Your task to perform on an android device: turn on the 24-hour format for clock Image 0: 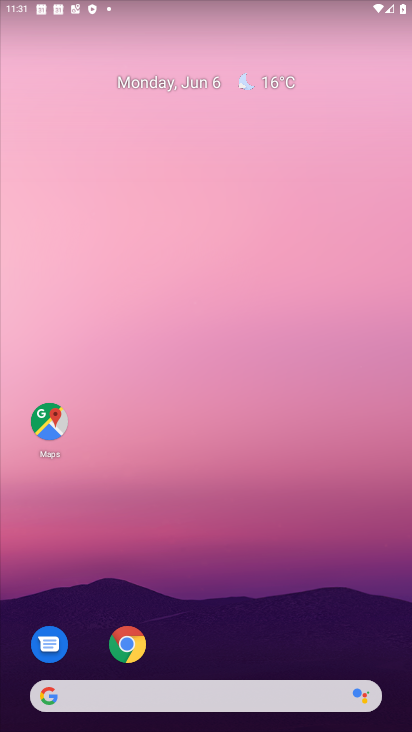
Step 0: drag from (235, 534) to (222, 50)
Your task to perform on an android device: turn on the 24-hour format for clock Image 1: 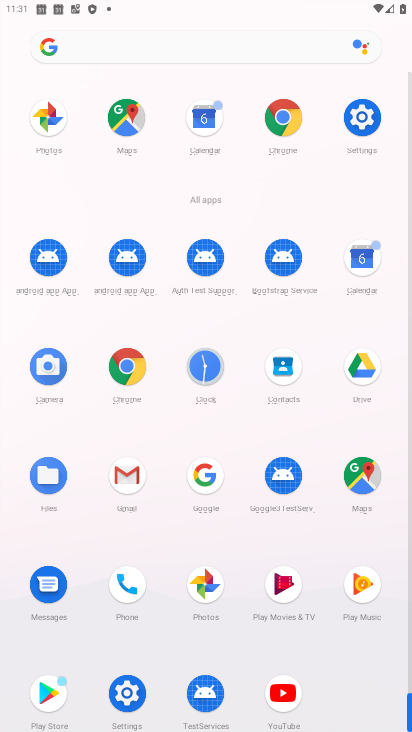
Step 1: drag from (7, 587) to (6, 195)
Your task to perform on an android device: turn on the 24-hour format for clock Image 2: 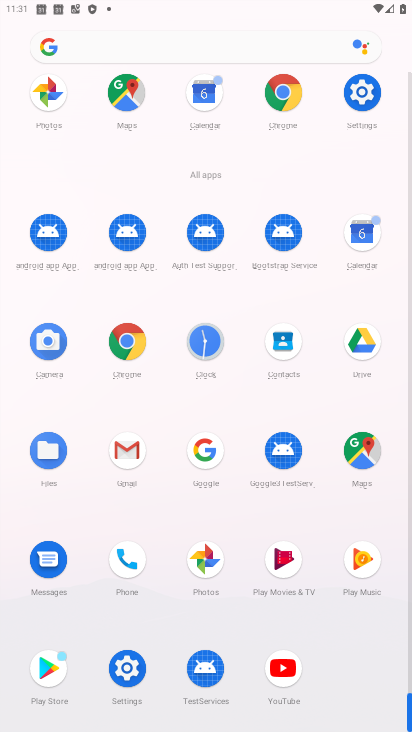
Step 2: click (124, 666)
Your task to perform on an android device: turn on the 24-hour format for clock Image 3: 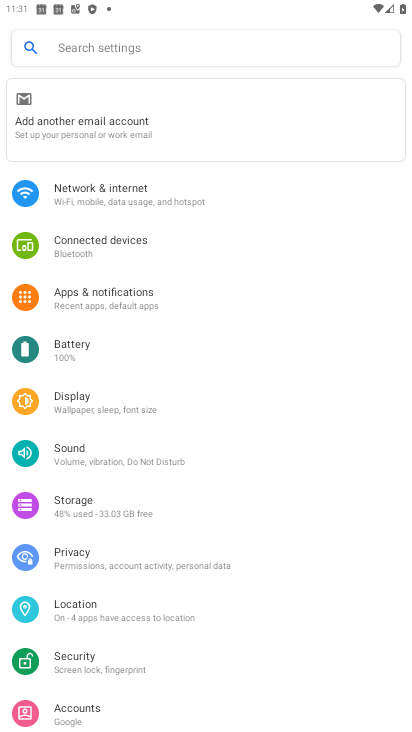
Step 3: drag from (221, 496) to (224, 181)
Your task to perform on an android device: turn on the 24-hour format for clock Image 4: 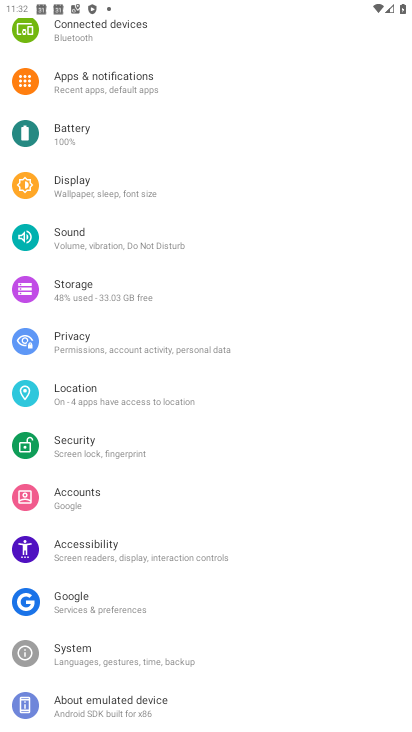
Step 4: drag from (175, 185) to (200, 609)
Your task to perform on an android device: turn on the 24-hour format for clock Image 5: 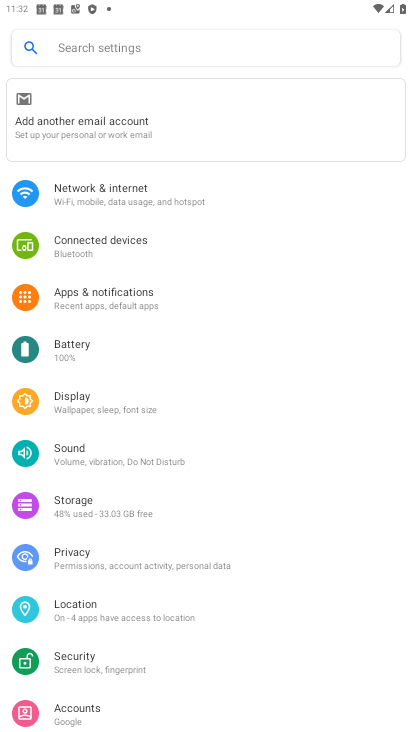
Step 5: press back button
Your task to perform on an android device: turn on the 24-hour format for clock Image 6: 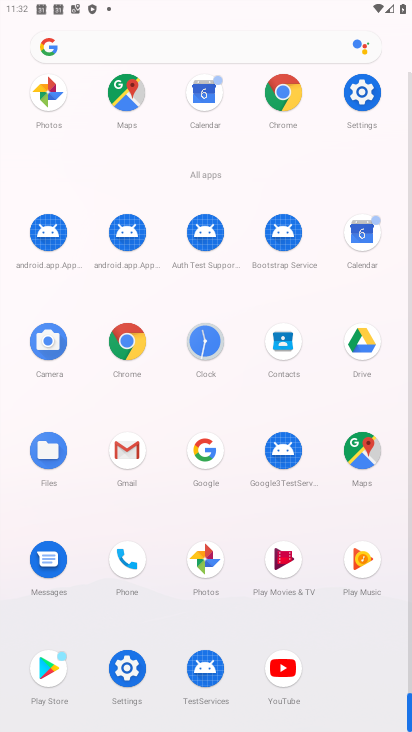
Step 6: drag from (10, 498) to (15, 306)
Your task to perform on an android device: turn on the 24-hour format for clock Image 7: 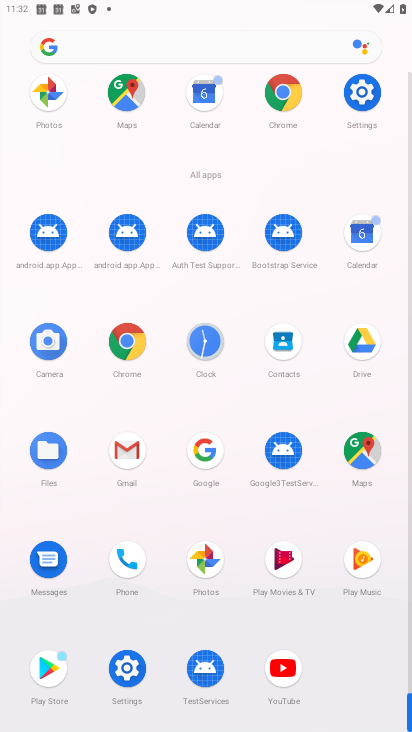
Step 7: click (204, 337)
Your task to perform on an android device: turn on the 24-hour format for clock Image 8: 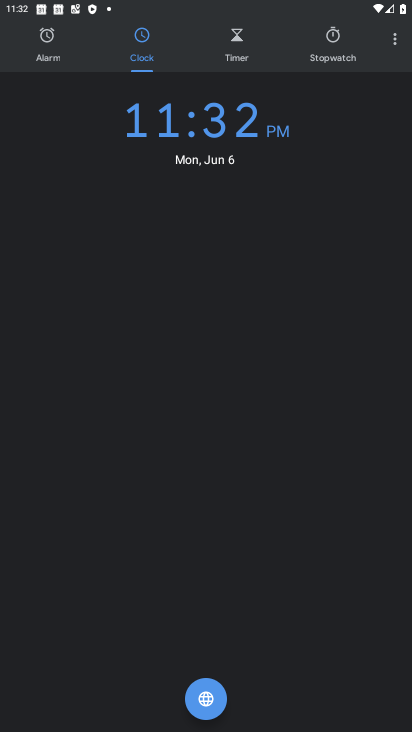
Step 8: drag from (391, 39) to (351, 81)
Your task to perform on an android device: turn on the 24-hour format for clock Image 9: 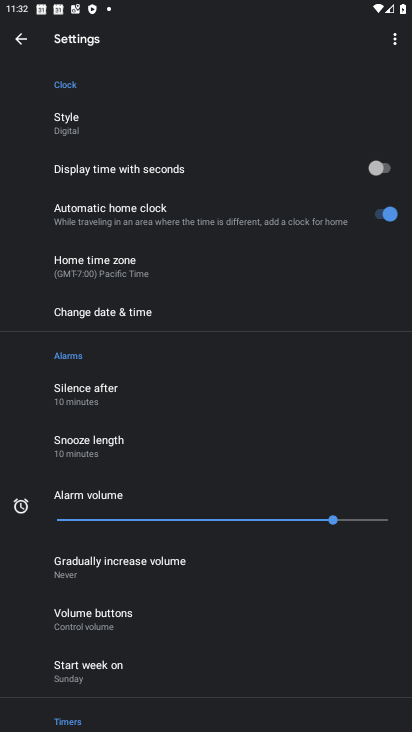
Step 9: click (158, 313)
Your task to perform on an android device: turn on the 24-hour format for clock Image 10: 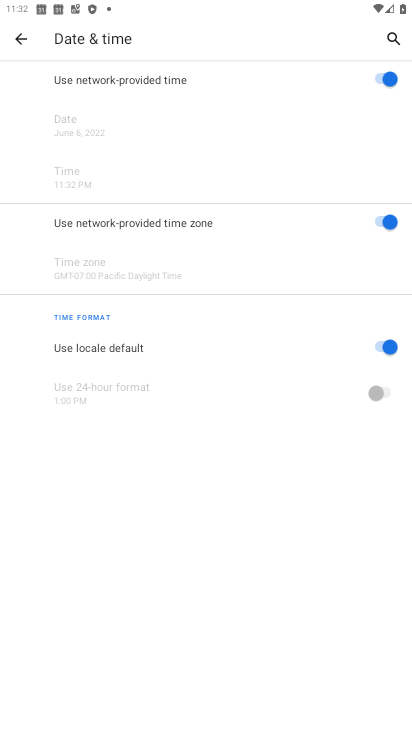
Step 10: click (379, 351)
Your task to perform on an android device: turn on the 24-hour format for clock Image 11: 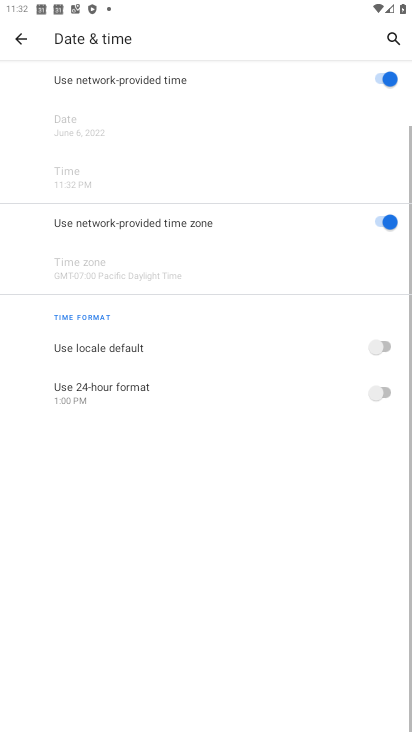
Step 11: click (375, 386)
Your task to perform on an android device: turn on the 24-hour format for clock Image 12: 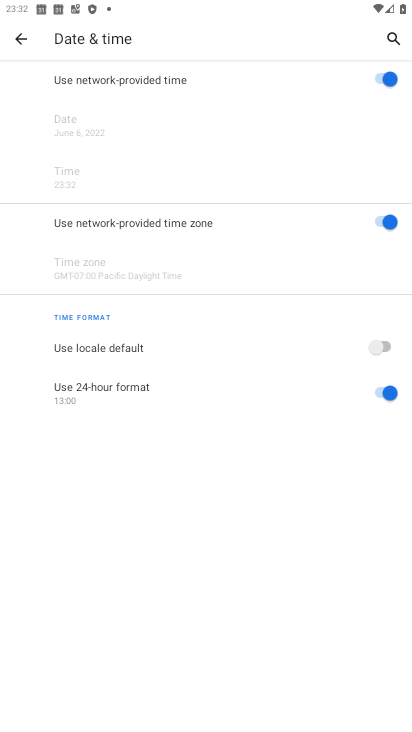
Step 12: task complete